Your task to perform on an android device: see sites visited before in the chrome app Image 0: 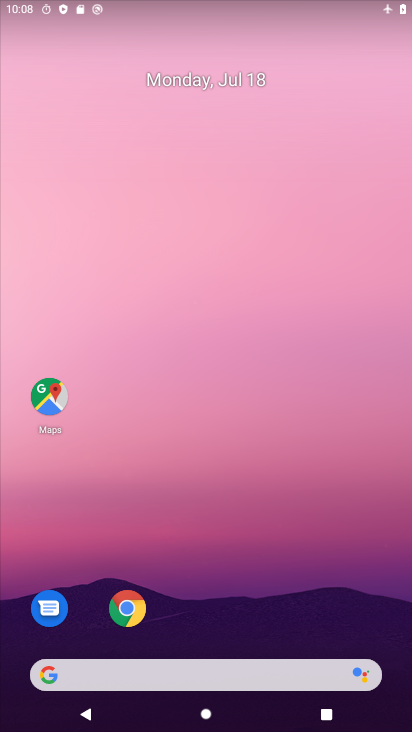
Step 0: click (270, 76)
Your task to perform on an android device: see sites visited before in the chrome app Image 1: 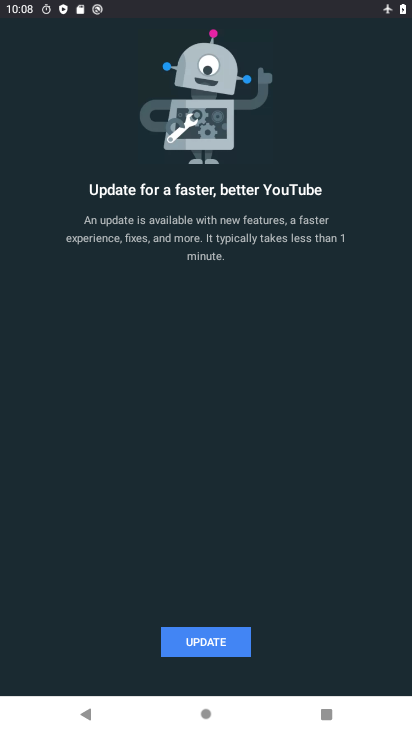
Step 1: press back button
Your task to perform on an android device: see sites visited before in the chrome app Image 2: 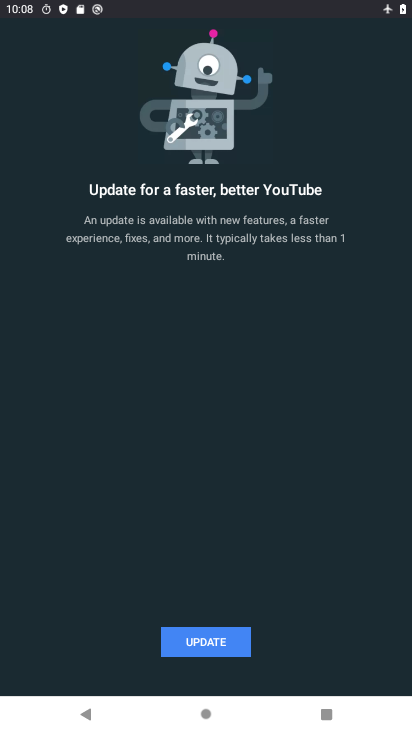
Step 2: press back button
Your task to perform on an android device: see sites visited before in the chrome app Image 3: 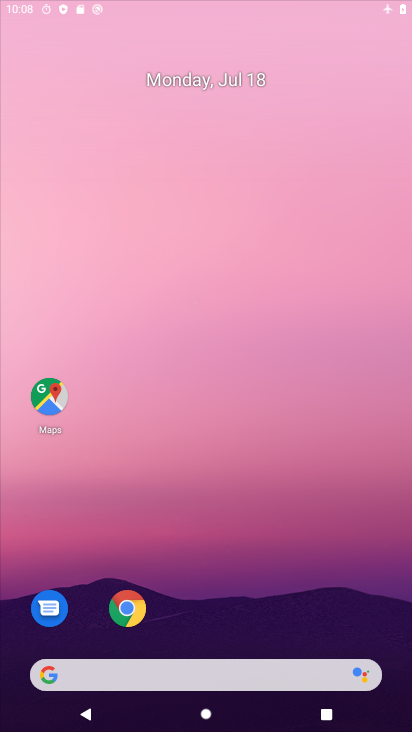
Step 3: press back button
Your task to perform on an android device: see sites visited before in the chrome app Image 4: 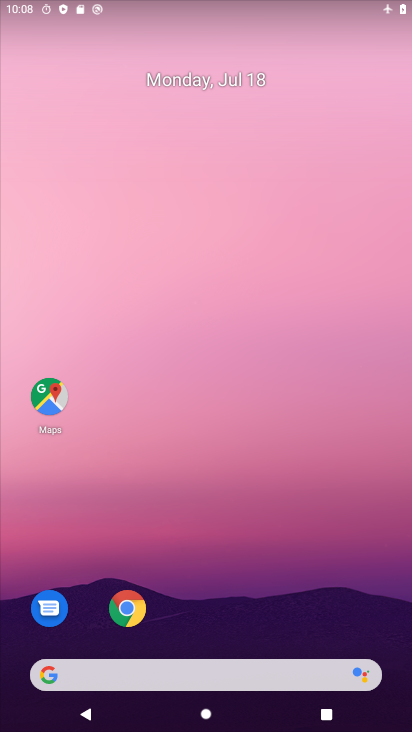
Step 4: drag from (247, 644) to (158, 25)
Your task to perform on an android device: see sites visited before in the chrome app Image 5: 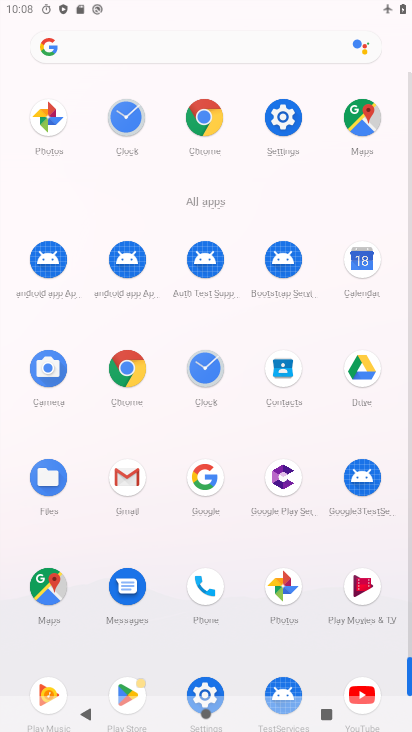
Step 5: click (212, 116)
Your task to perform on an android device: see sites visited before in the chrome app Image 6: 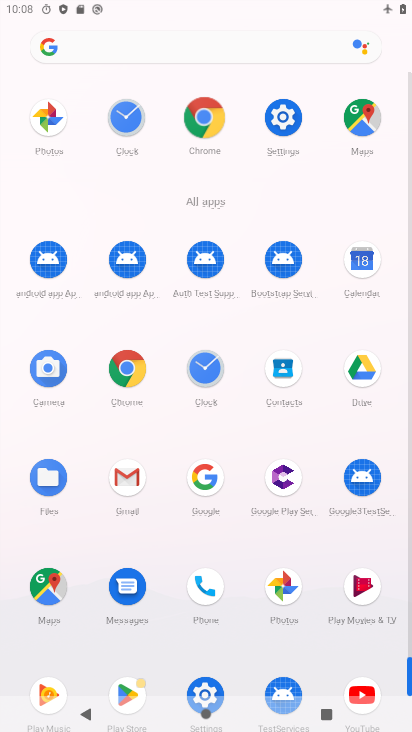
Step 6: click (209, 115)
Your task to perform on an android device: see sites visited before in the chrome app Image 7: 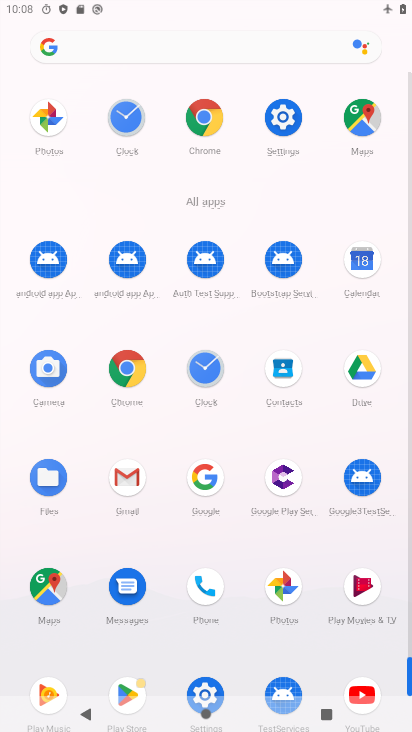
Step 7: click (205, 122)
Your task to perform on an android device: see sites visited before in the chrome app Image 8: 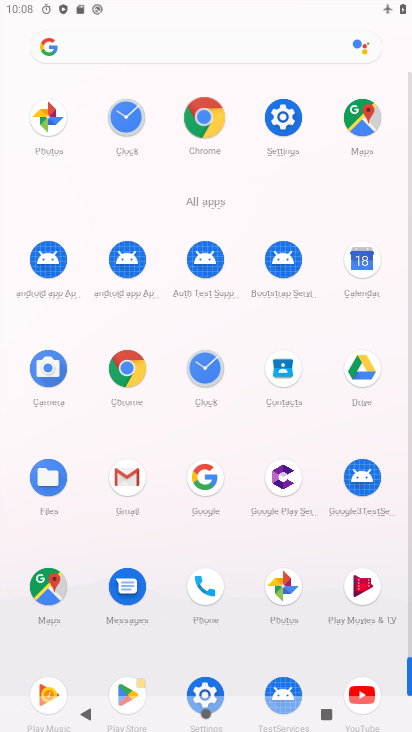
Step 8: click (206, 121)
Your task to perform on an android device: see sites visited before in the chrome app Image 9: 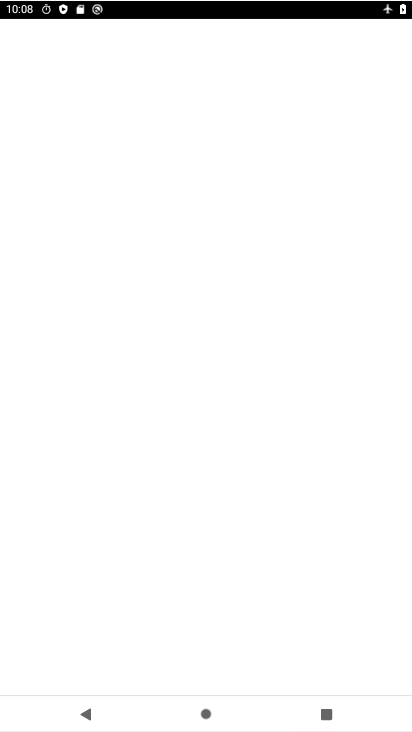
Step 9: click (206, 121)
Your task to perform on an android device: see sites visited before in the chrome app Image 10: 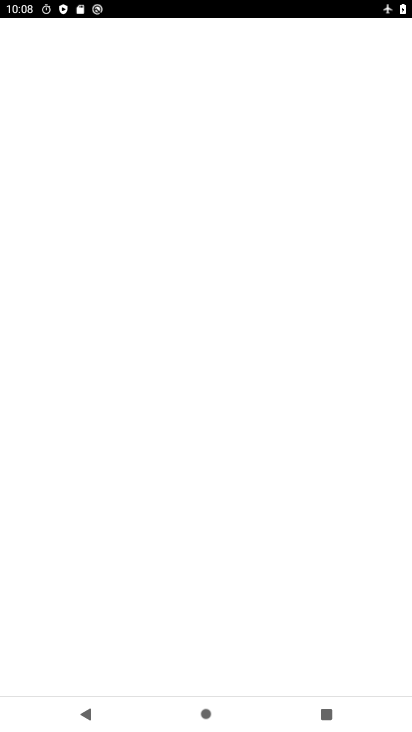
Step 10: click (206, 121)
Your task to perform on an android device: see sites visited before in the chrome app Image 11: 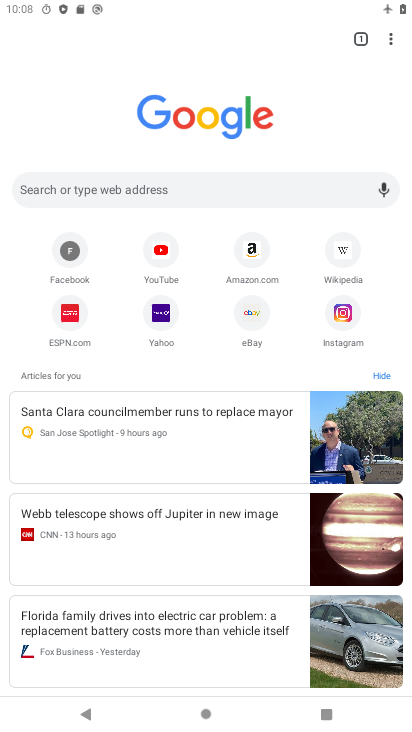
Step 11: drag from (388, 41) to (240, 186)
Your task to perform on an android device: see sites visited before in the chrome app Image 12: 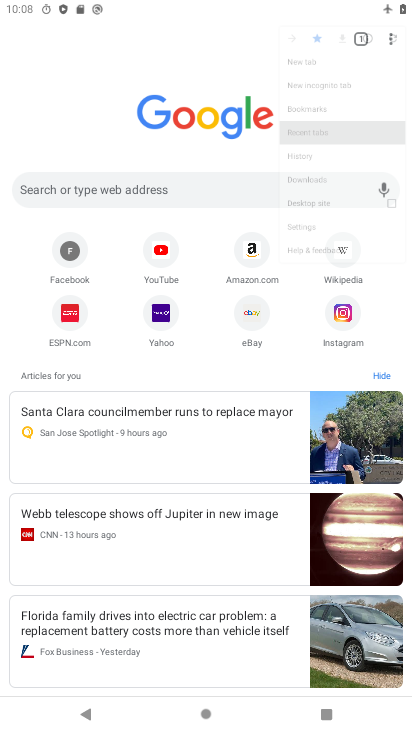
Step 12: click (242, 187)
Your task to perform on an android device: see sites visited before in the chrome app Image 13: 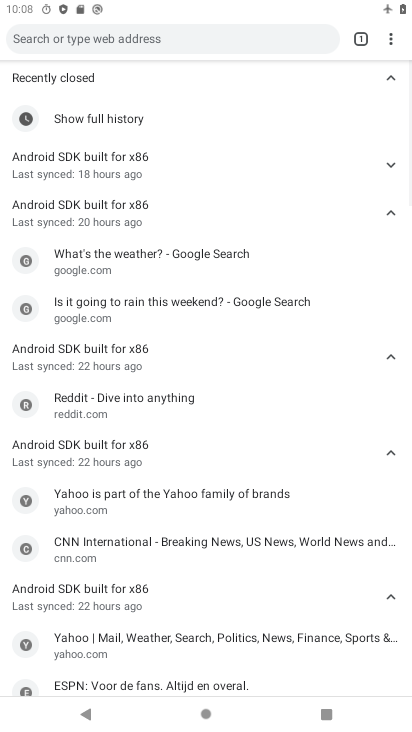
Step 13: task complete